Your task to perform on an android device: open app "Duolingo: language lessons" (install if not already installed) Image 0: 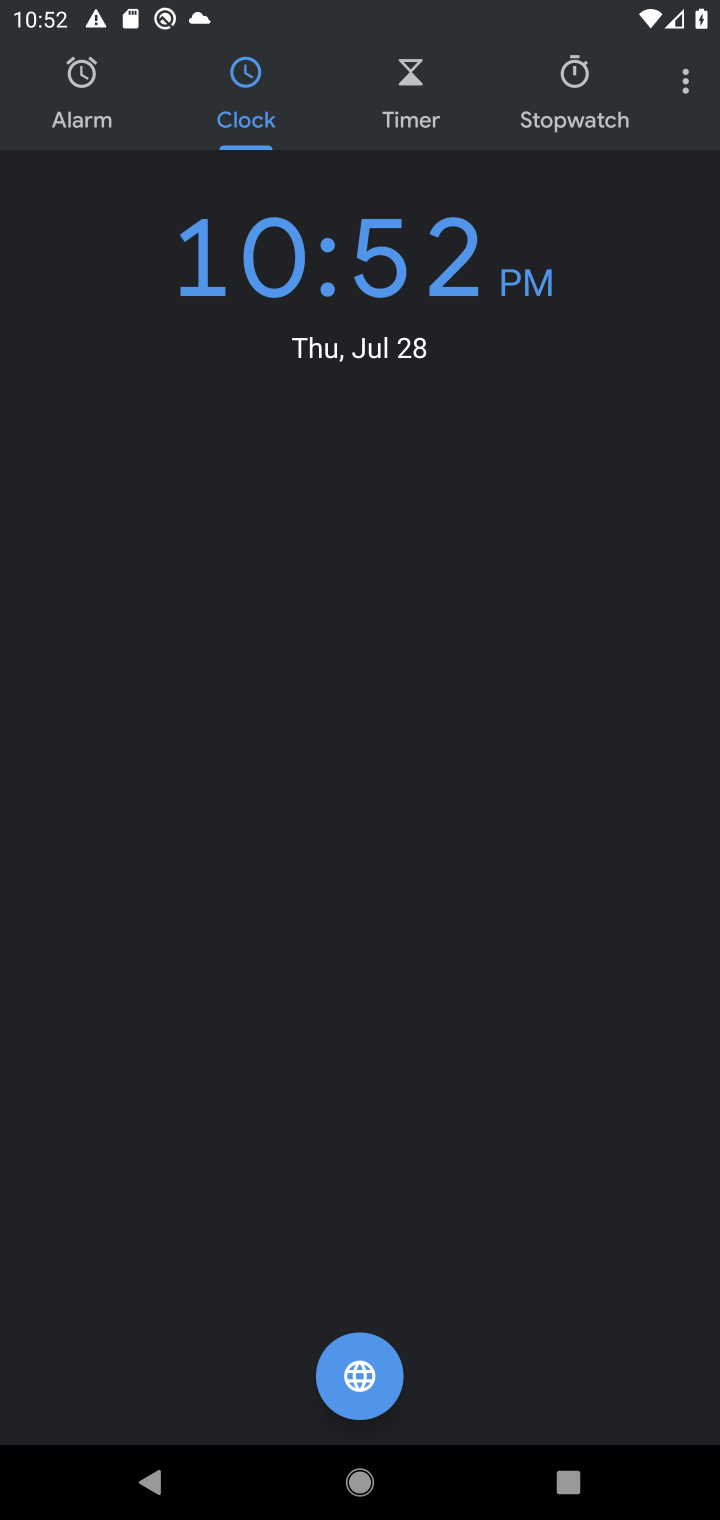
Step 0: press home button
Your task to perform on an android device: open app "Duolingo: language lessons" (install if not already installed) Image 1: 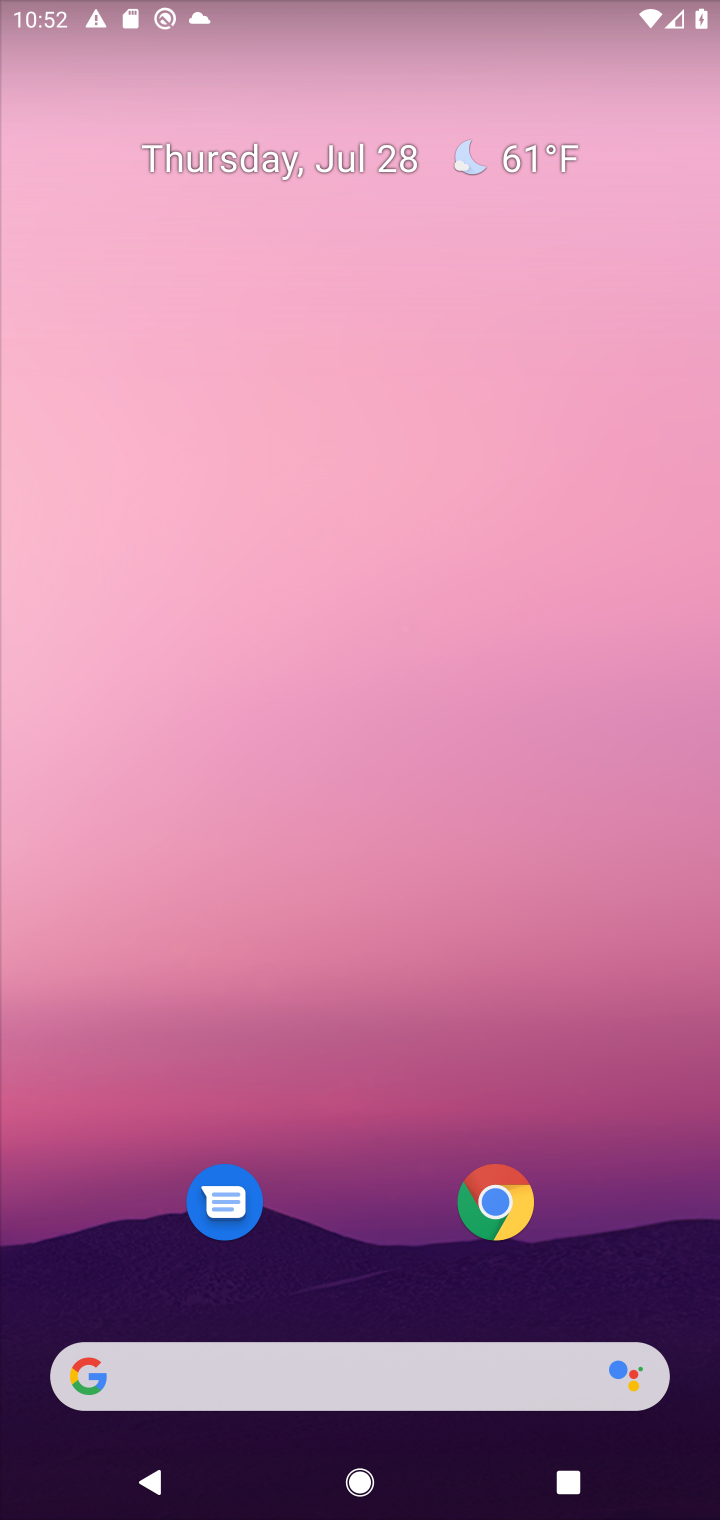
Step 1: click (343, 1379)
Your task to perform on an android device: open app "Duolingo: language lessons" (install if not already installed) Image 2: 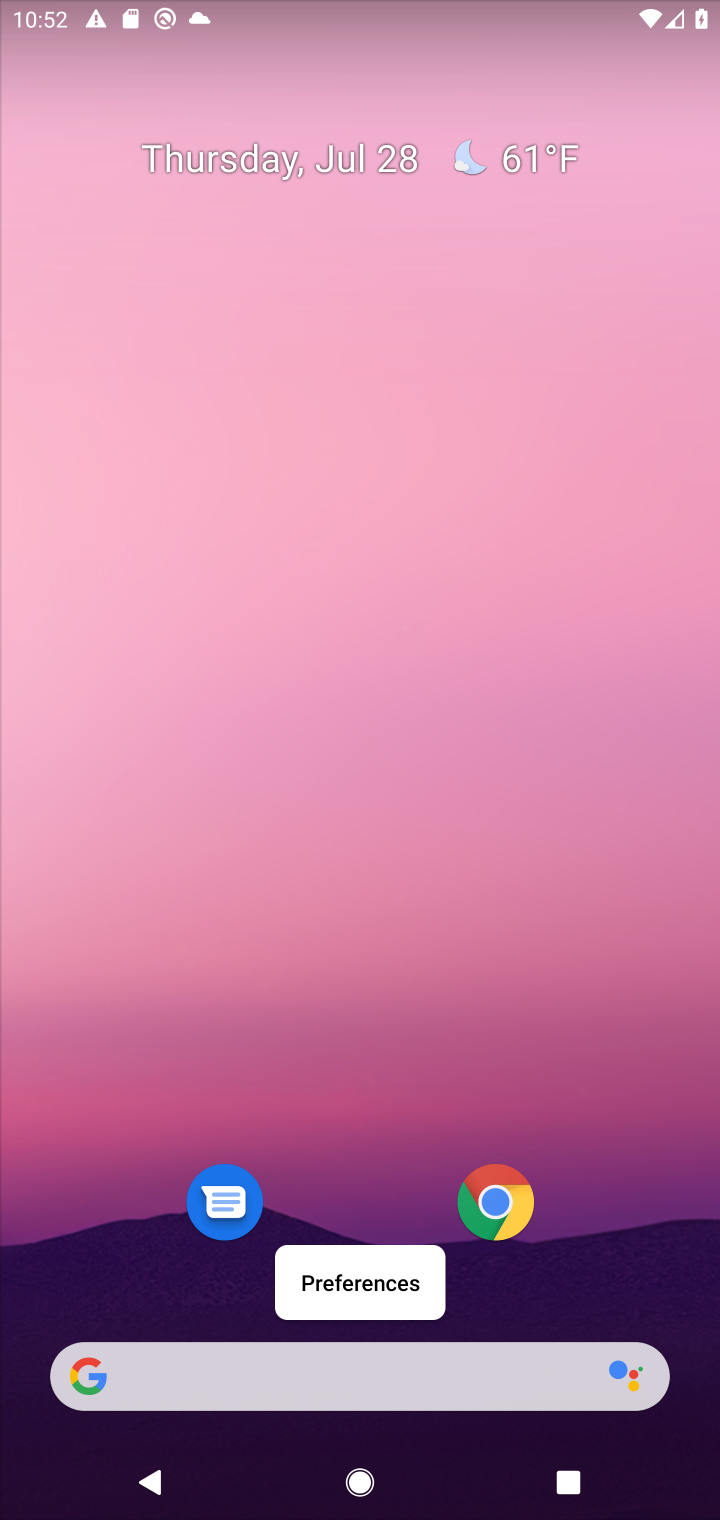
Step 2: type "duolingo"
Your task to perform on an android device: open app "Duolingo: language lessons" (install if not already installed) Image 3: 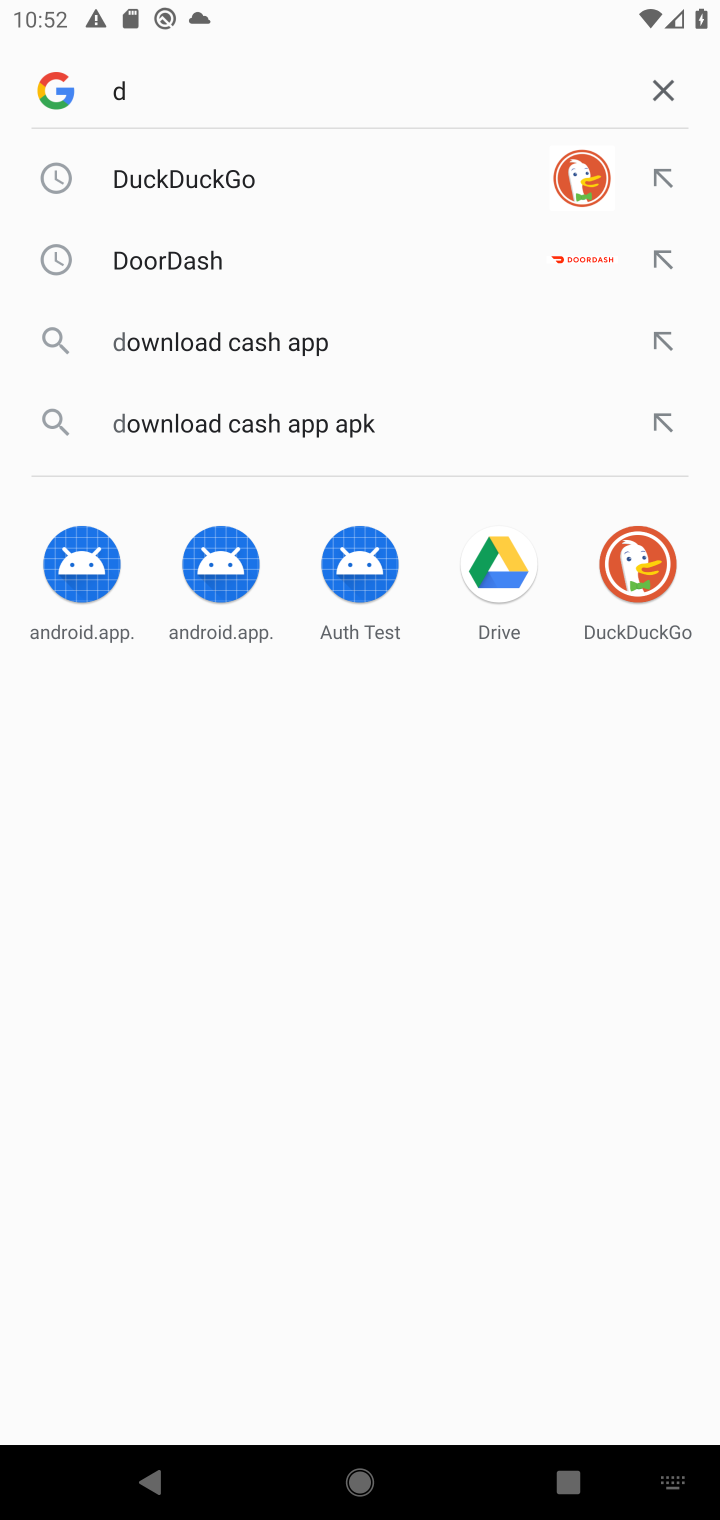
Step 3: click (631, 94)
Your task to perform on an android device: open app "Duolingo: language lessons" (install if not already installed) Image 4: 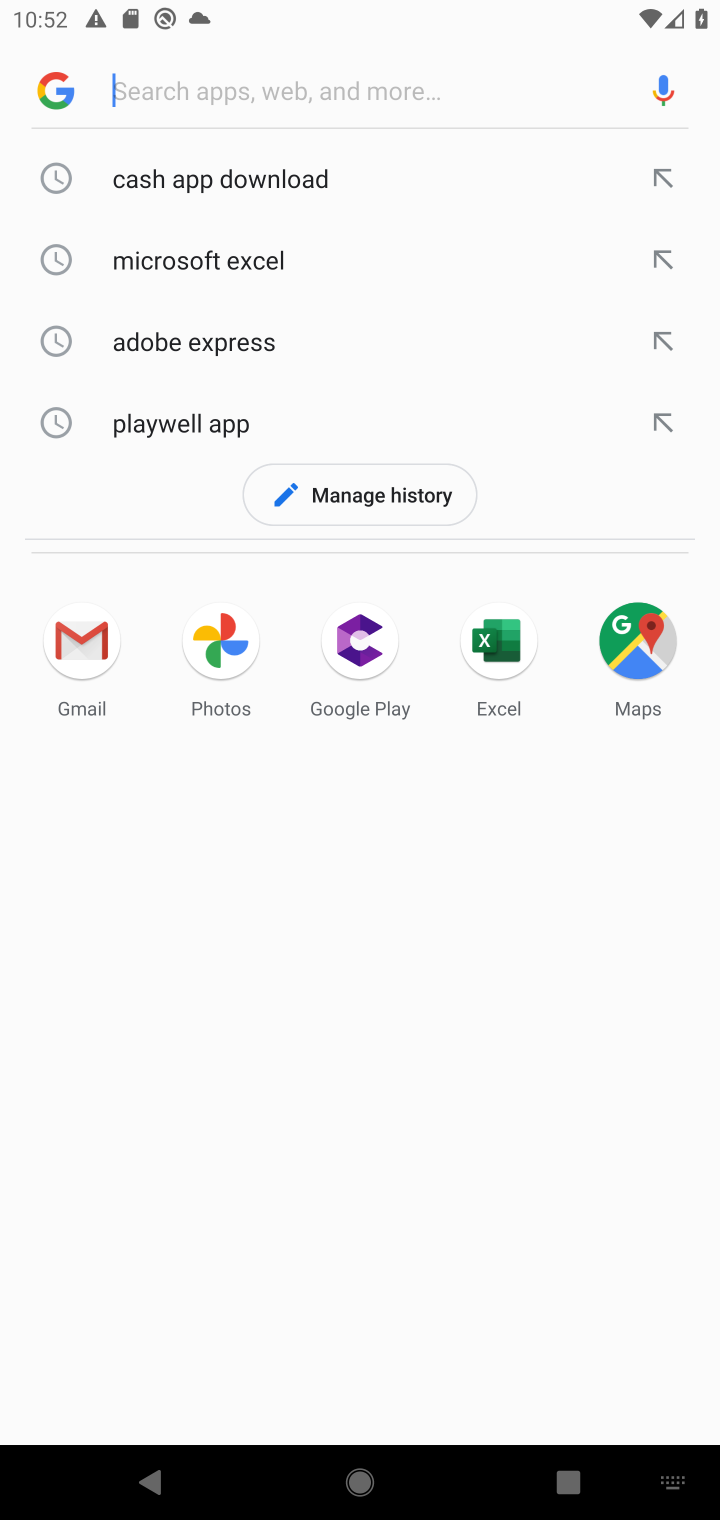
Step 4: type "duolingo"
Your task to perform on an android device: open app "Duolingo: language lessons" (install if not already installed) Image 5: 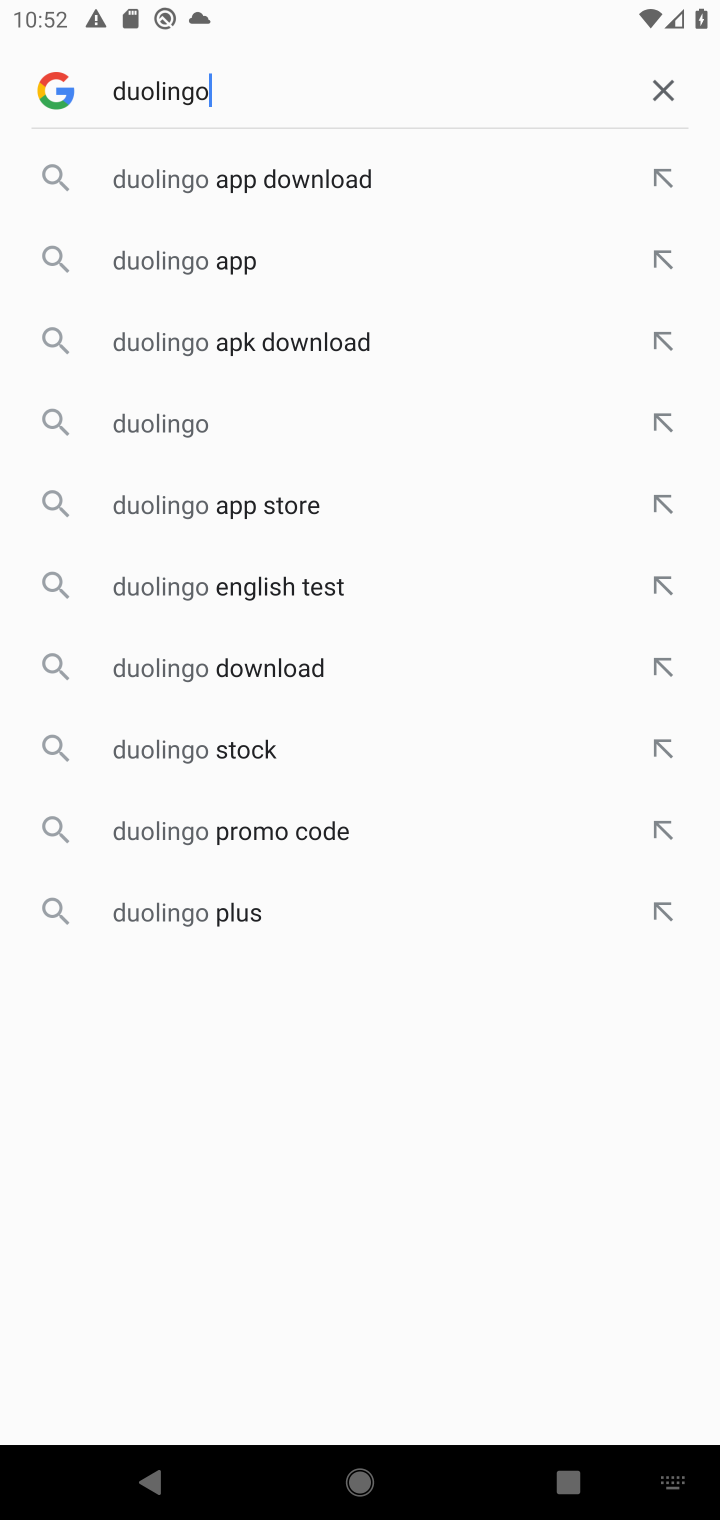
Step 5: click (297, 156)
Your task to perform on an android device: open app "Duolingo: language lessons" (install if not already installed) Image 6: 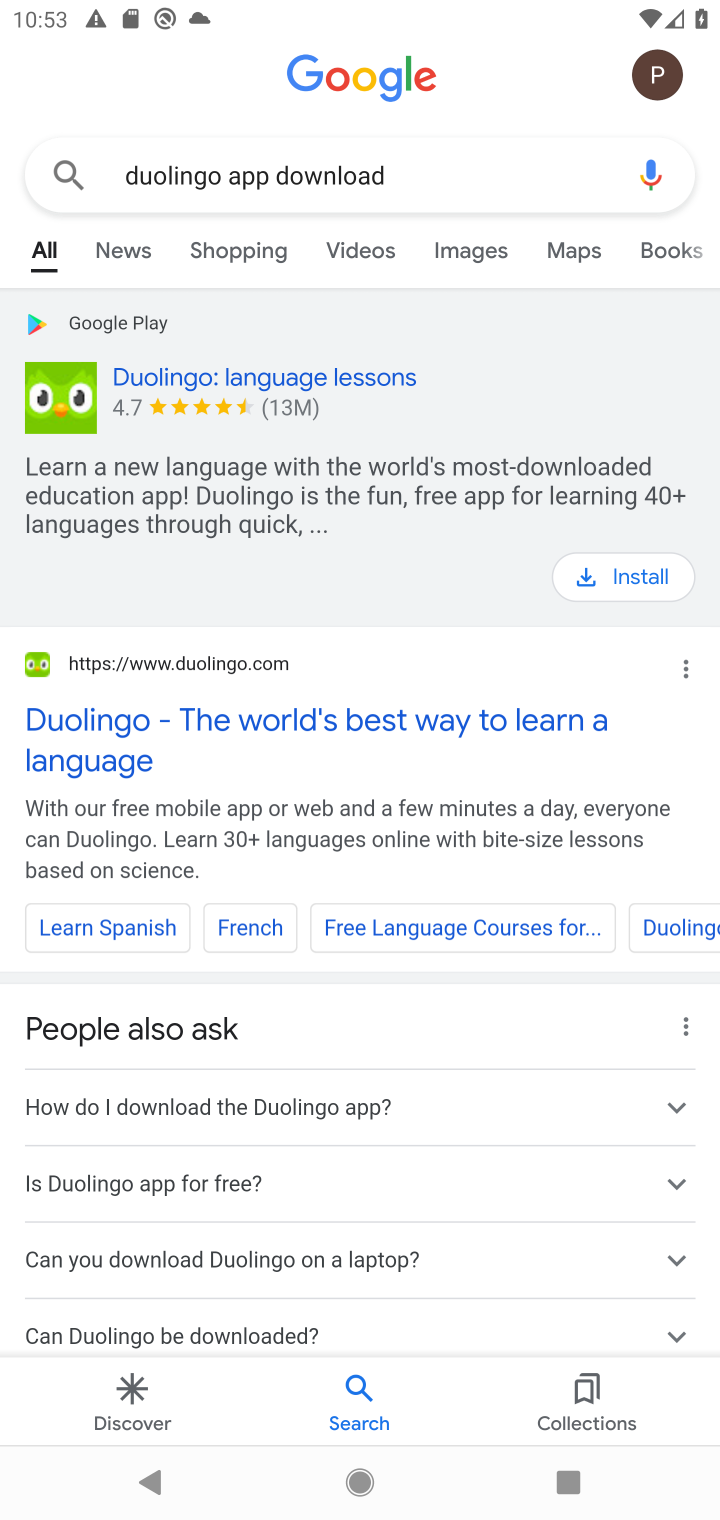
Step 6: click (628, 578)
Your task to perform on an android device: open app "Duolingo: language lessons" (install if not already installed) Image 7: 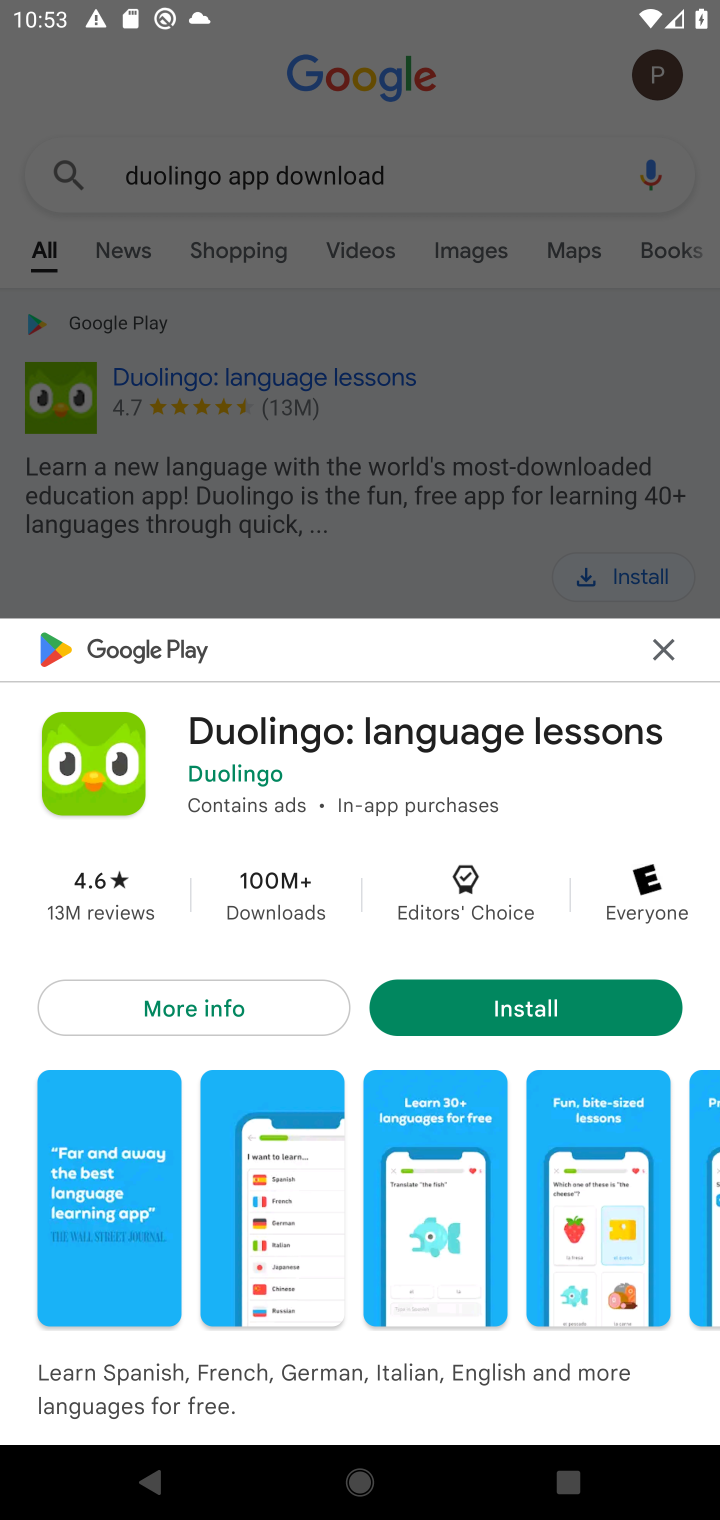
Step 7: click (535, 1033)
Your task to perform on an android device: open app "Duolingo: language lessons" (install if not already installed) Image 8: 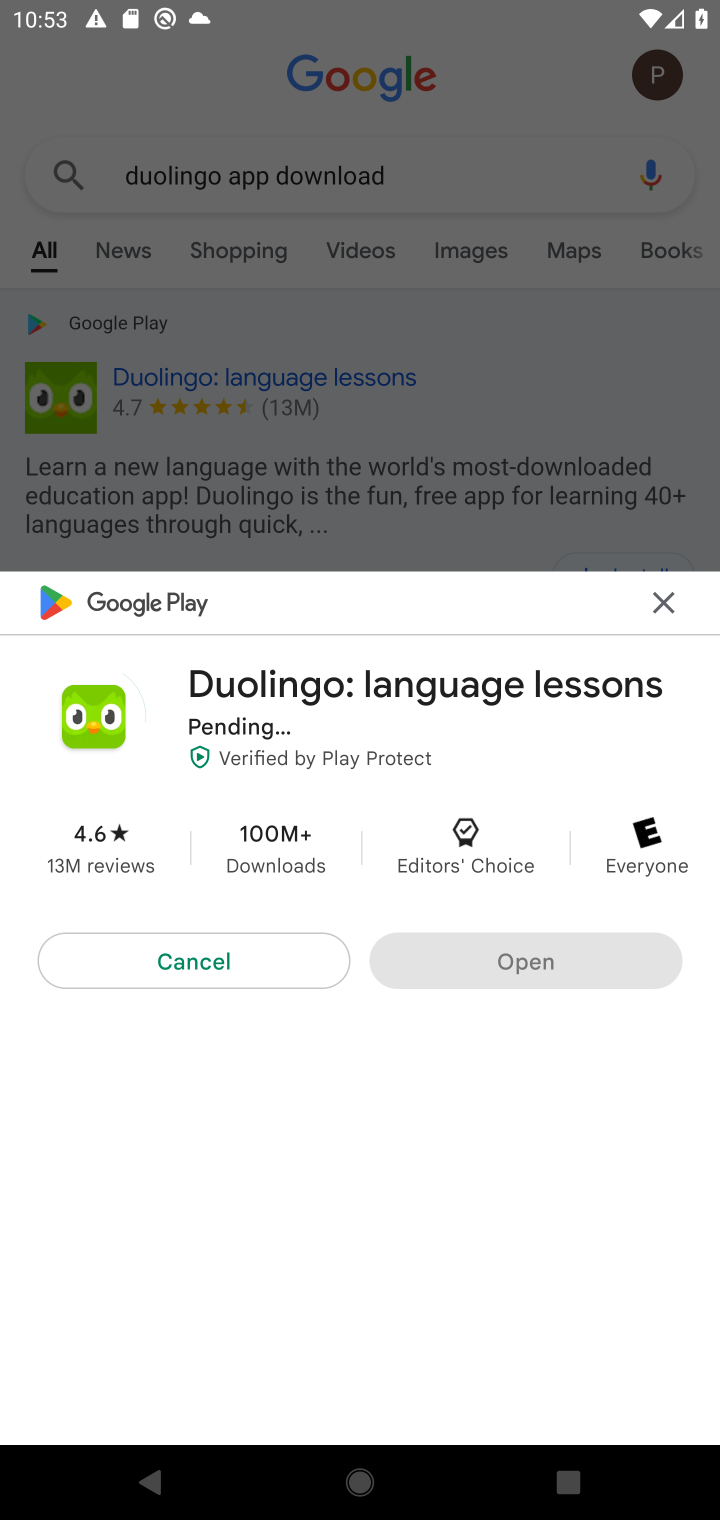
Step 8: task complete